Your task to perform on an android device: open device folders in google photos Image 0: 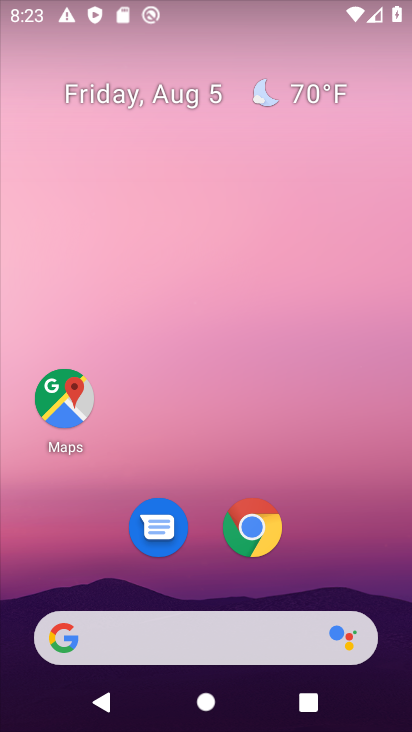
Step 0: drag from (232, 667) to (158, 28)
Your task to perform on an android device: open device folders in google photos Image 1: 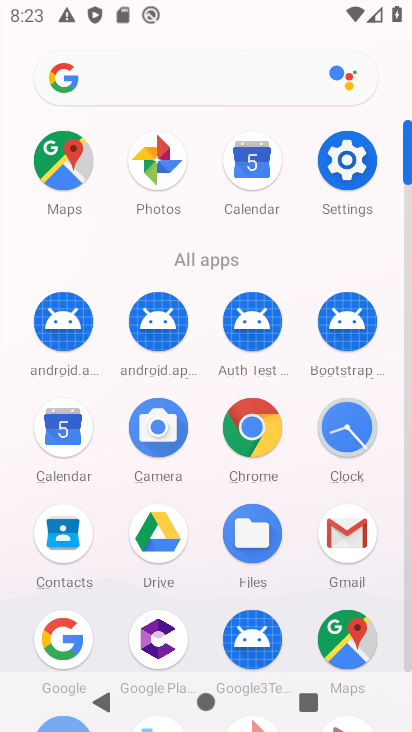
Step 1: drag from (160, 542) to (135, 73)
Your task to perform on an android device: open device folders in google photos Image 2: 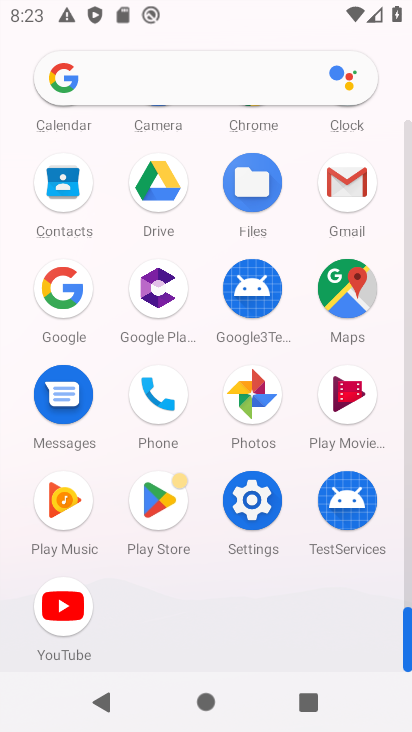
Step 2: click (253, 403)
Your task to perform on an android device: open device folders in google photos Image 3: 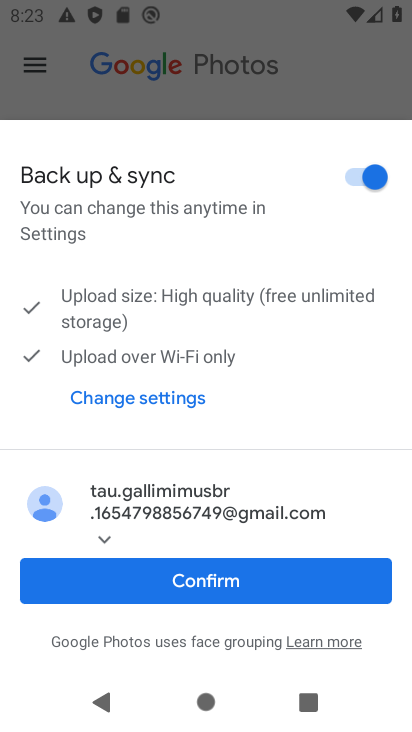
Step 3: click (240, 564)
Your task to perform on an android device: open device folders in google photos Image 4: 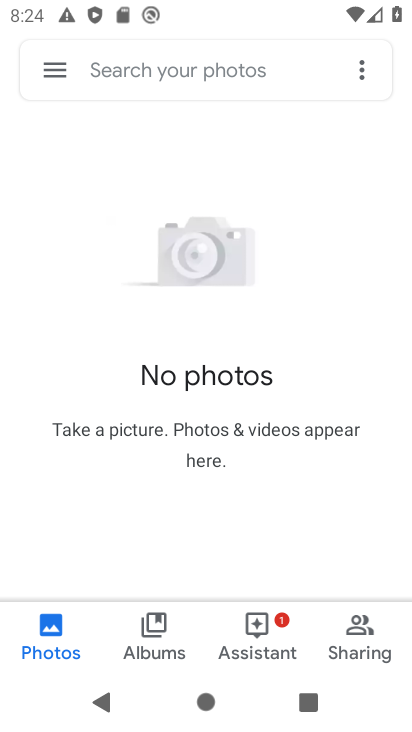
Step 4: click (164, 642)
Your task to perform on an android device: open device folders in google photos Image 5: 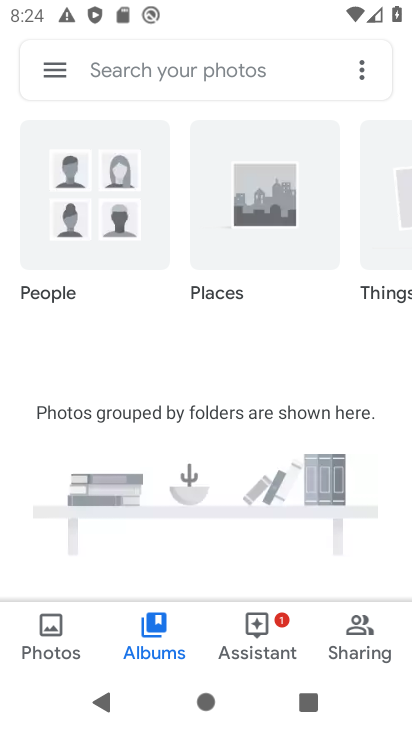
Step 5: task complete